Your task to perform on an android device: Search for seafood restaurants on Google Maps Image 0: 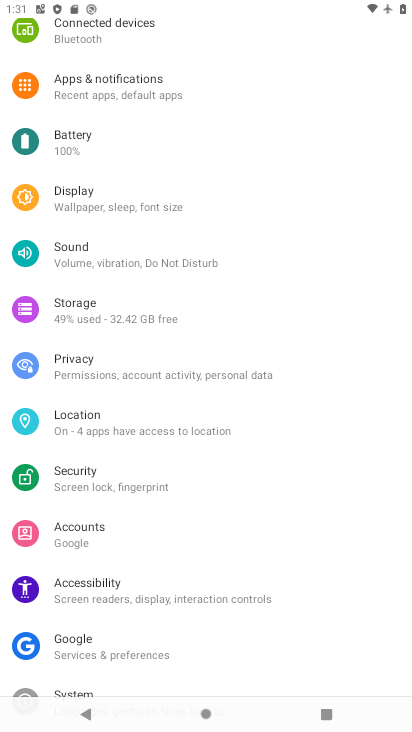
Step 0: press home button
Your task to perform on an android device: Search for seafood restaurants on Google Maps Image 1: 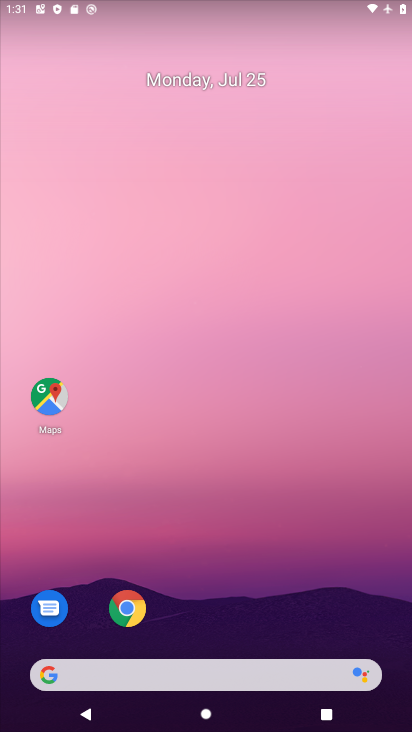
Step 1: drag from (219, 595) to (273, 204)
Your task to perform on an android device: Search for seafood restaurants on Google Maps Image 2: 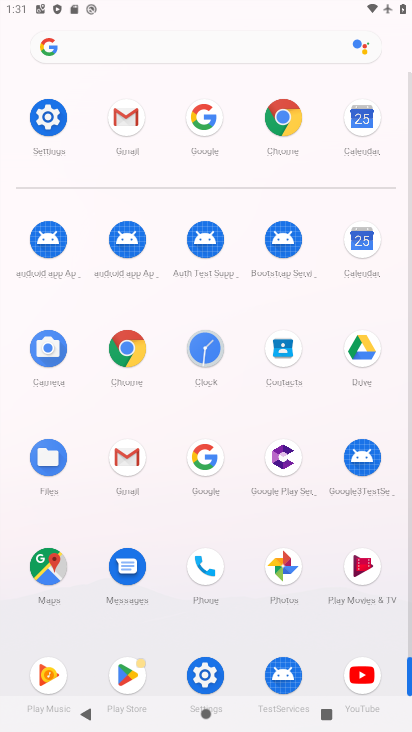
Step 2: click (62, 575)
Your task to perform on an android device: Search for seafood restaurants on Google Maps Image 3: 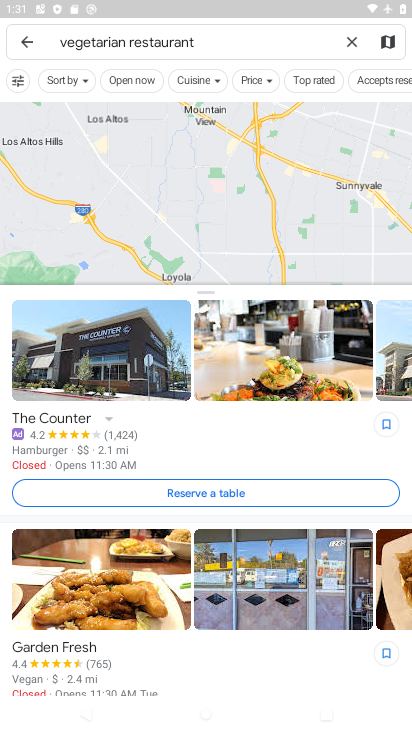
Step 3: click (353, 49)
Your task to perform on an android device: Search for seafood restaurants on Google Maps Image 4: 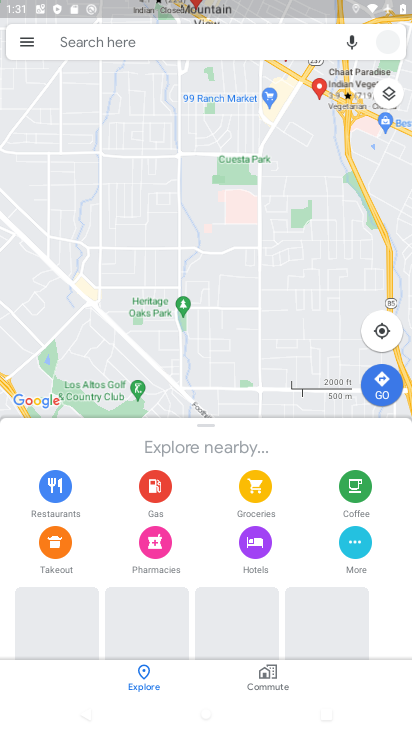
Step 4: click (180, 43)
Your task to perform on an android device: Search for seafood restaurants on Google Maps Image 5: 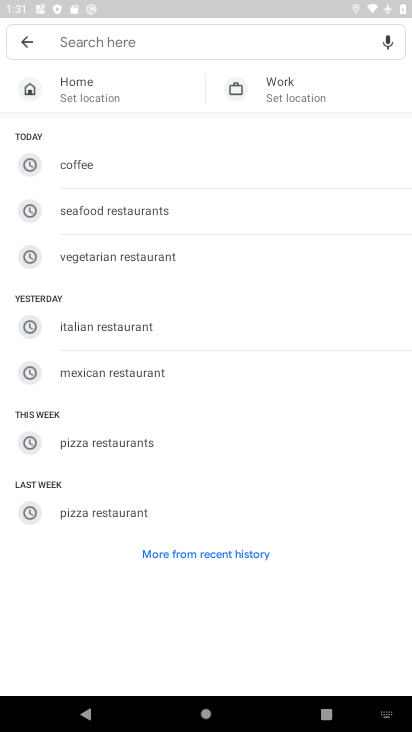
Step 5: click (147, 213)
Your task to perform on an android device: Search for seafood restaurants on Google Maps Image 6: 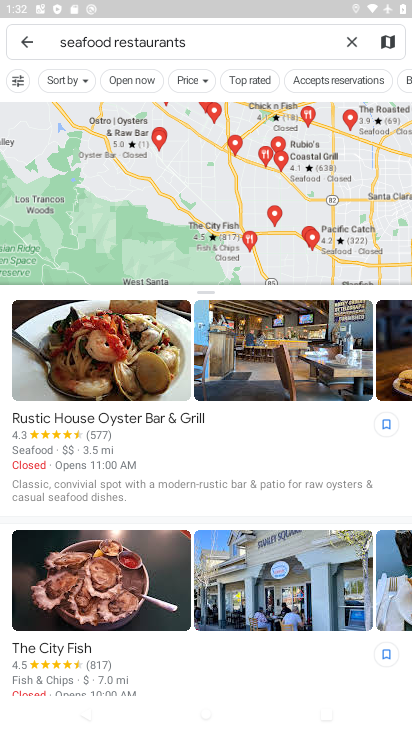
Step 6: task complete